Your task to perform on an android device: turn off priority inbox in the gmail app Image 0: 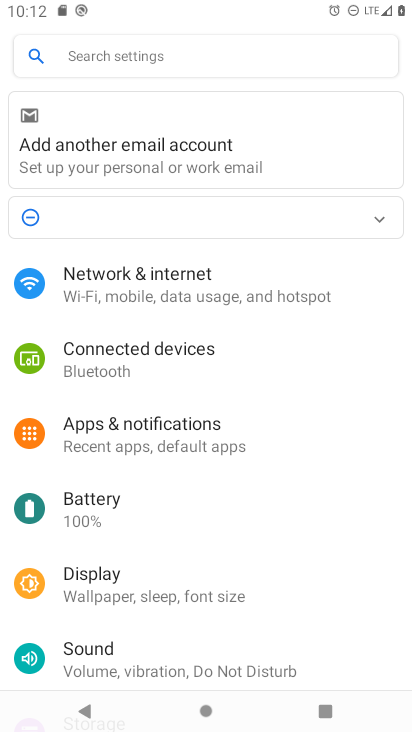
Step 0: press home button
Your task to perform on an android device: turn off priority inbox in the gmail app Image 1: 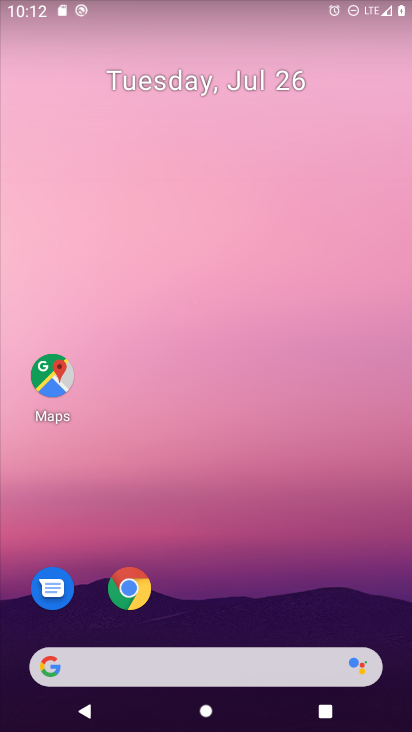
Step 1: drag from (210, 649) to (232, 219)
Your task to perform on an android device: turn off priority inbox in the gmail app Image 2: 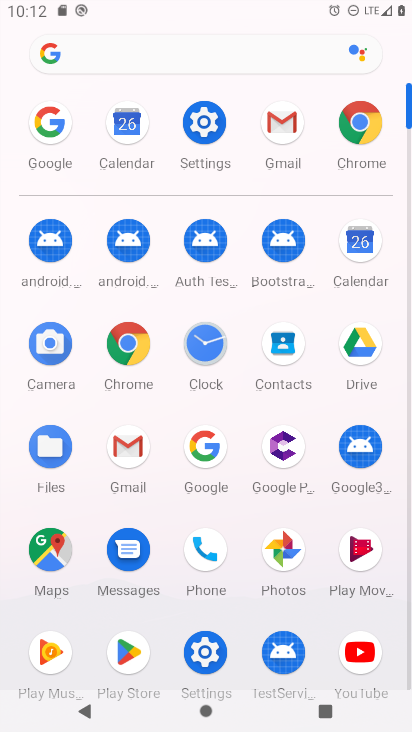
Step 2: click (136, 462)
Your task to perform on an android device: turn off priority inbox in the gmail app Image 3: 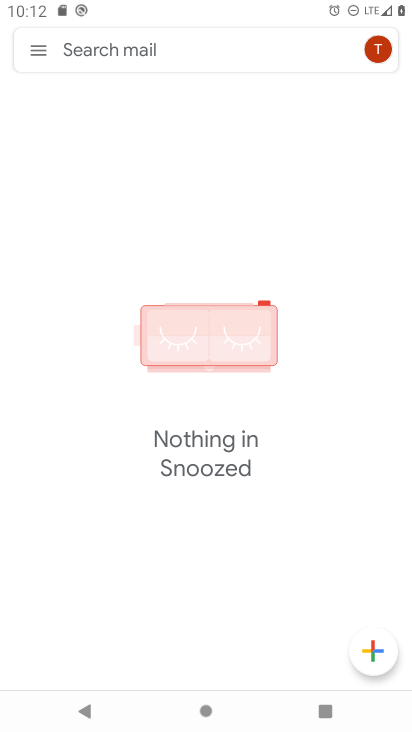
Step 3: click (39, 48)
Your task to perform on an android device: turn off priority inbox in the gmail app Image 4: 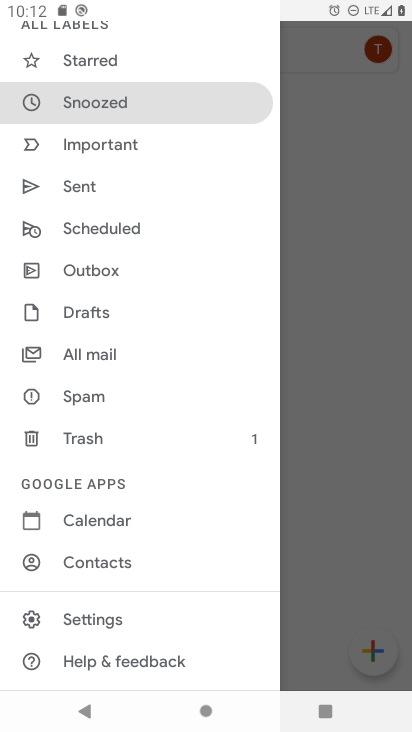
Step 4: click (102, 622)
Your task to perform on an android device: turn off priority inbox in the gmail app Image 5: 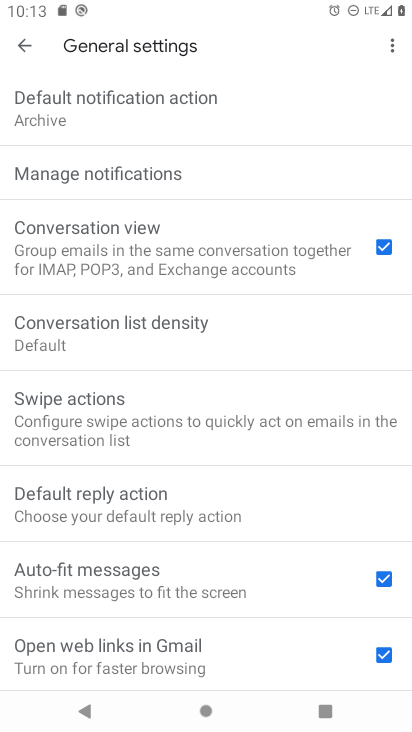
Step 5: drag from (156, 573) to (135, 250)
Your task to perform on an android device: turn off priority inbox in the gmail app Image 6: 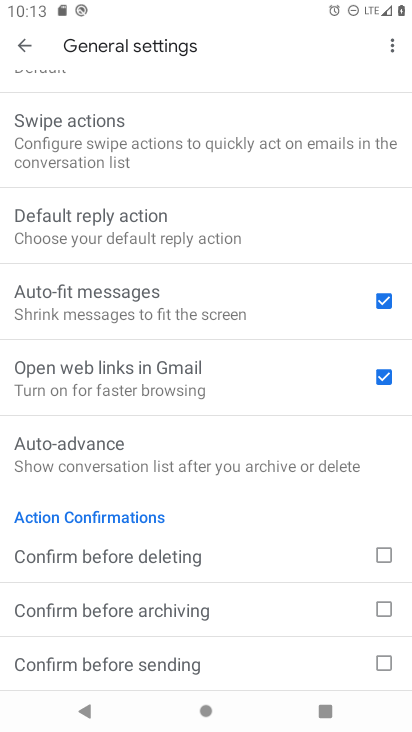
Step 6: drag from (135, 249) to (112, 512)
Your task to perform on an android device: turn off priority inbox in the gmail app Image 7: 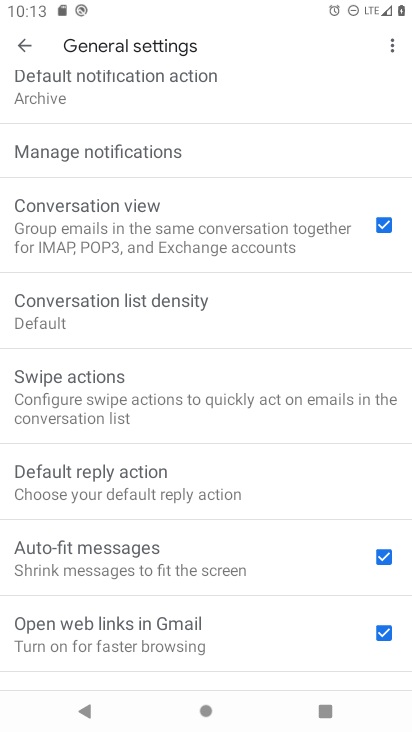
Step 7: click (27, 47)
Your task to perform on an android device: turn off priority inbox in the gmail app Image 8: 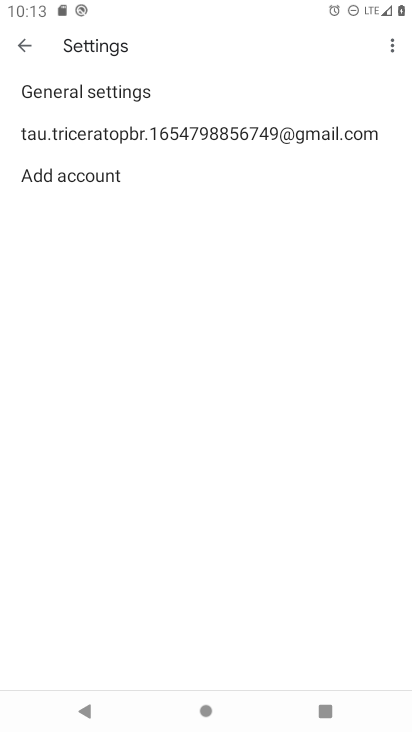
Step 8: click (186, 134)
Your task to perform on an android device: turn off priority inbox in the gmail app Image 9: 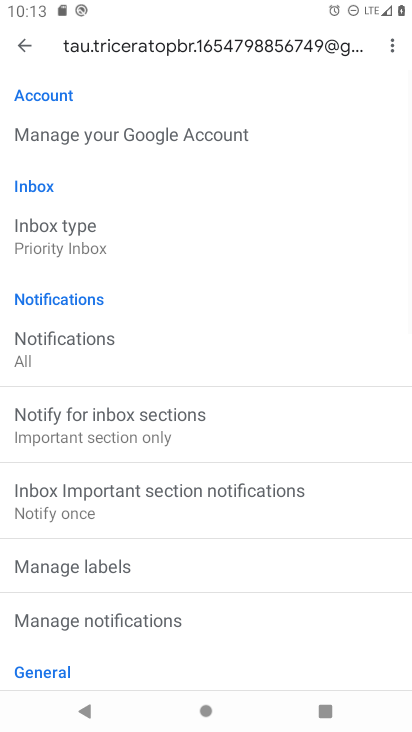
Step 9: drag from (137, 542) to (134, 431)
Your task to perform on an android device: turn off priority inbox in the gmail app Image 10: 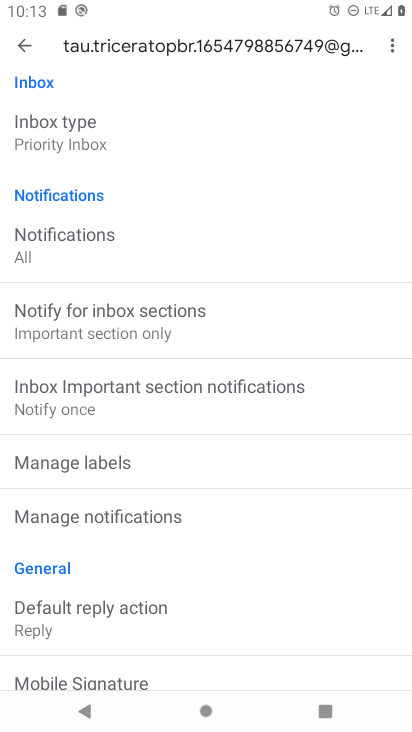
Step 10: click (70, 152)
Your task to perform on an android device: turn off priority inbox in the gmail app Image 11: 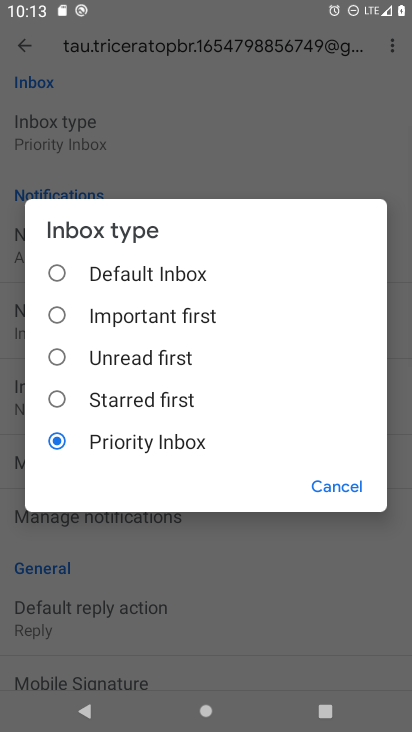
Step 11: click (119, 274)
Your task to perform on an android device: turn off priority inbox in the gmail app Image 12: 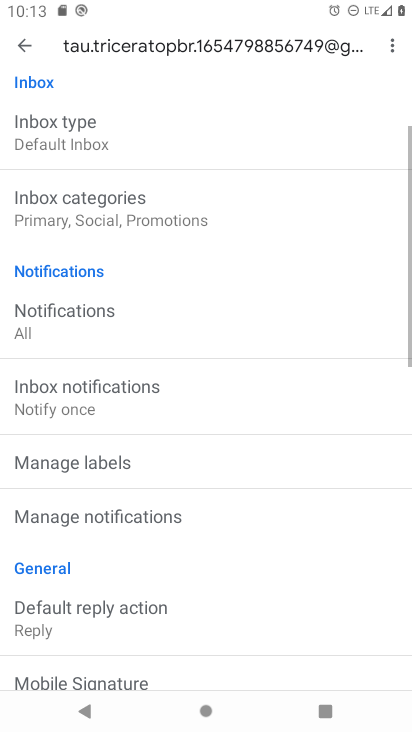
Step 12: task complete